Your task to perform on an android device: View the shopping cart on ebay. Search for dell xps on ebay, select the first entry, add it to the cart, then select checkout. Image 0: 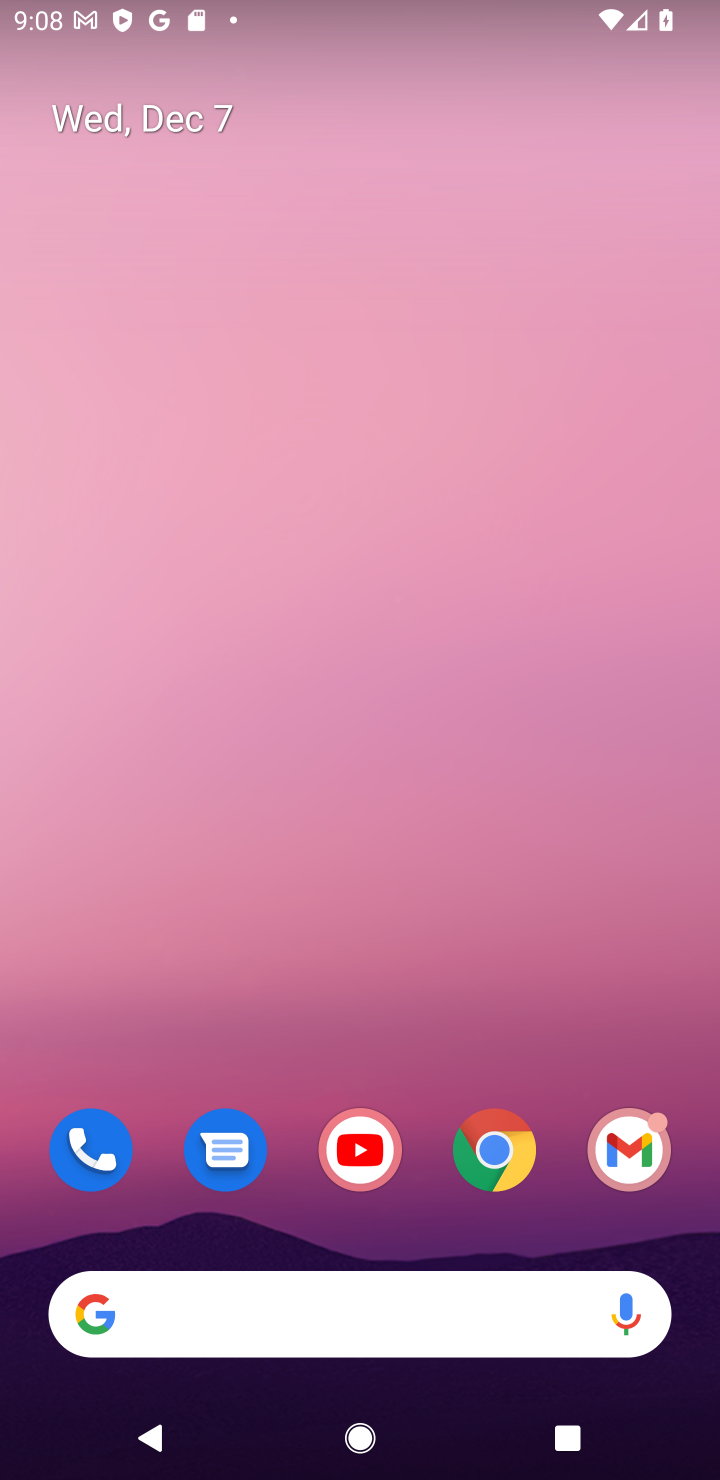
Step 0: click (472, 1167)
Your task to perform on an android device: View the shopping cart on ebay. Search for dell xps on ebay, select the first entry, add it to the cart, then select checkout. Image 1: 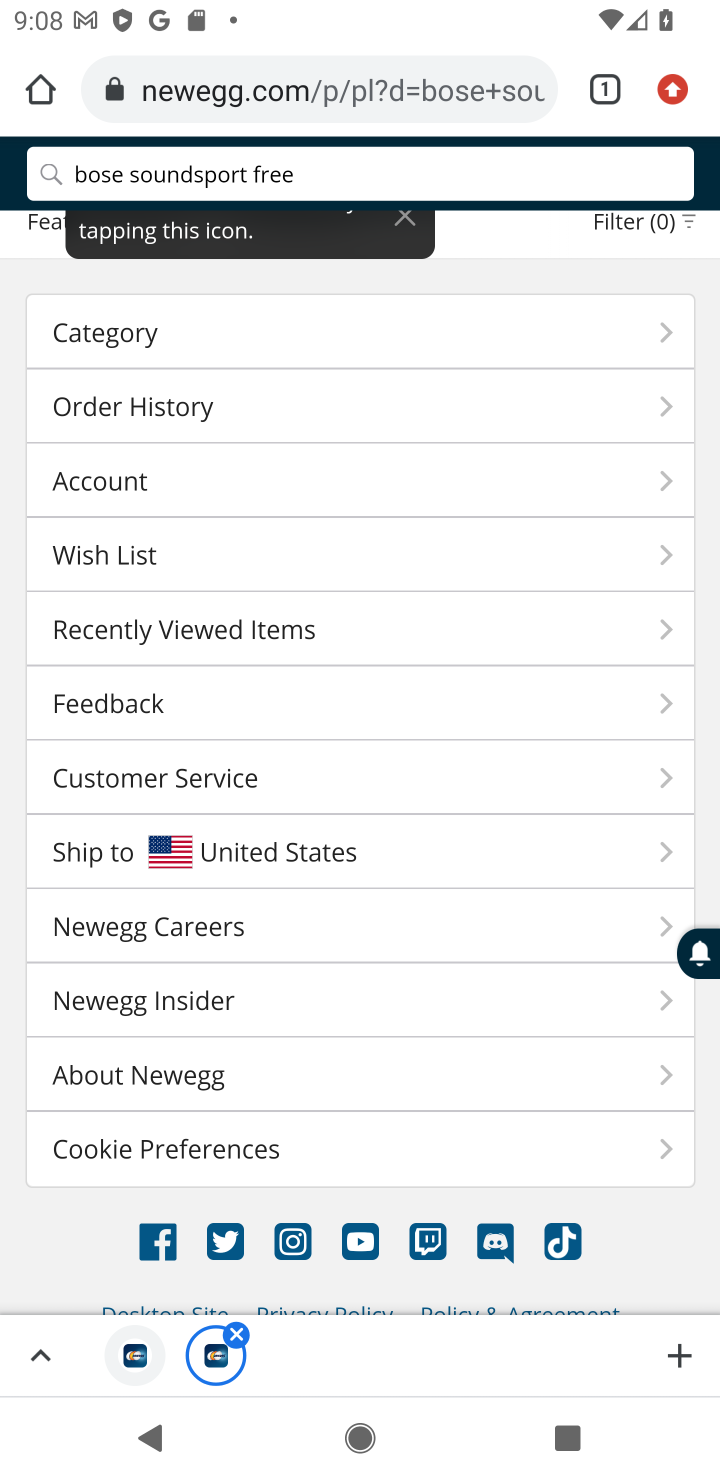
Step 1: click (229, 99)
Your task to perform on an android device: View the shopping cart on ebay. Search for dell xps on ebay, select the first entry, add it to the cart, then select checkout. Image 2: 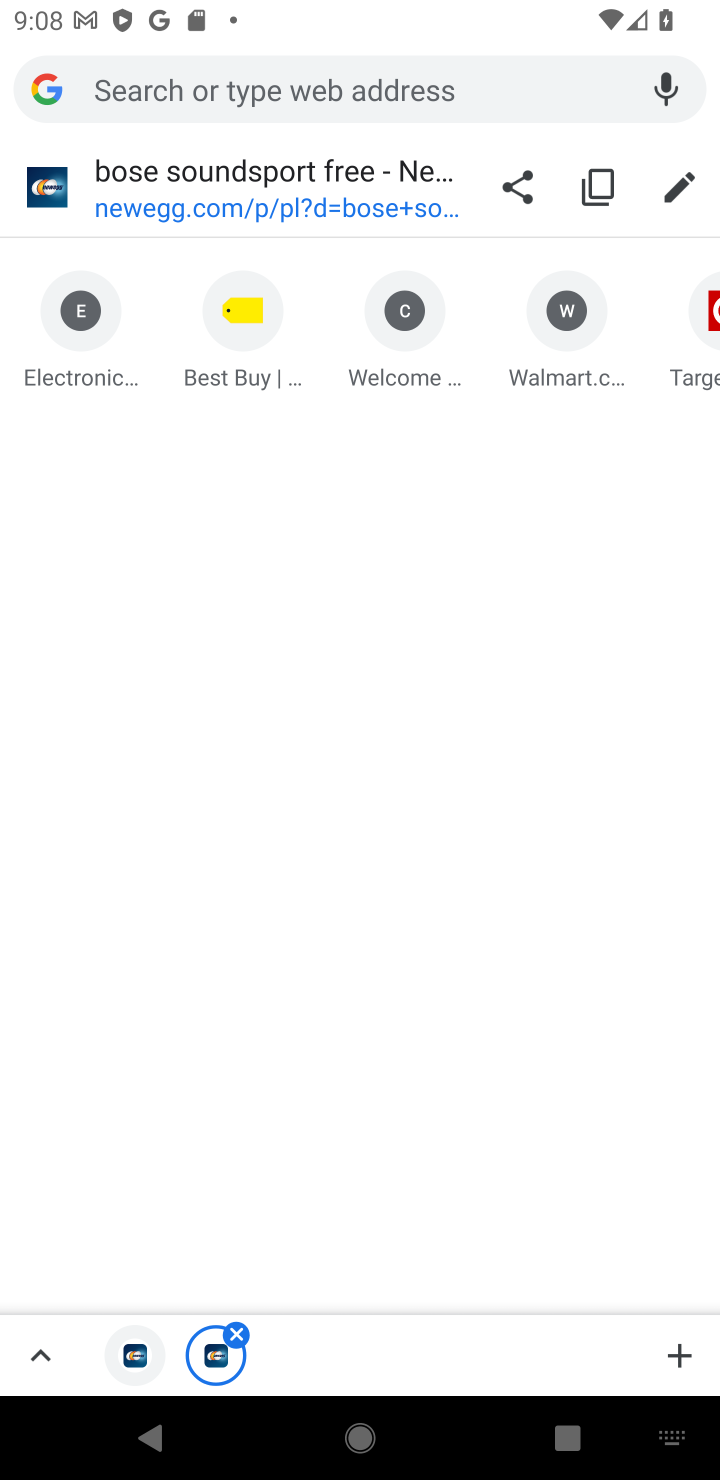
Step 2: click (76, 322)
Your task to perform on an android device: View the shopping cart on ebay. Search for dell xps on ebay, select the first entry, add it to the cart, then select checkout. Image 3: 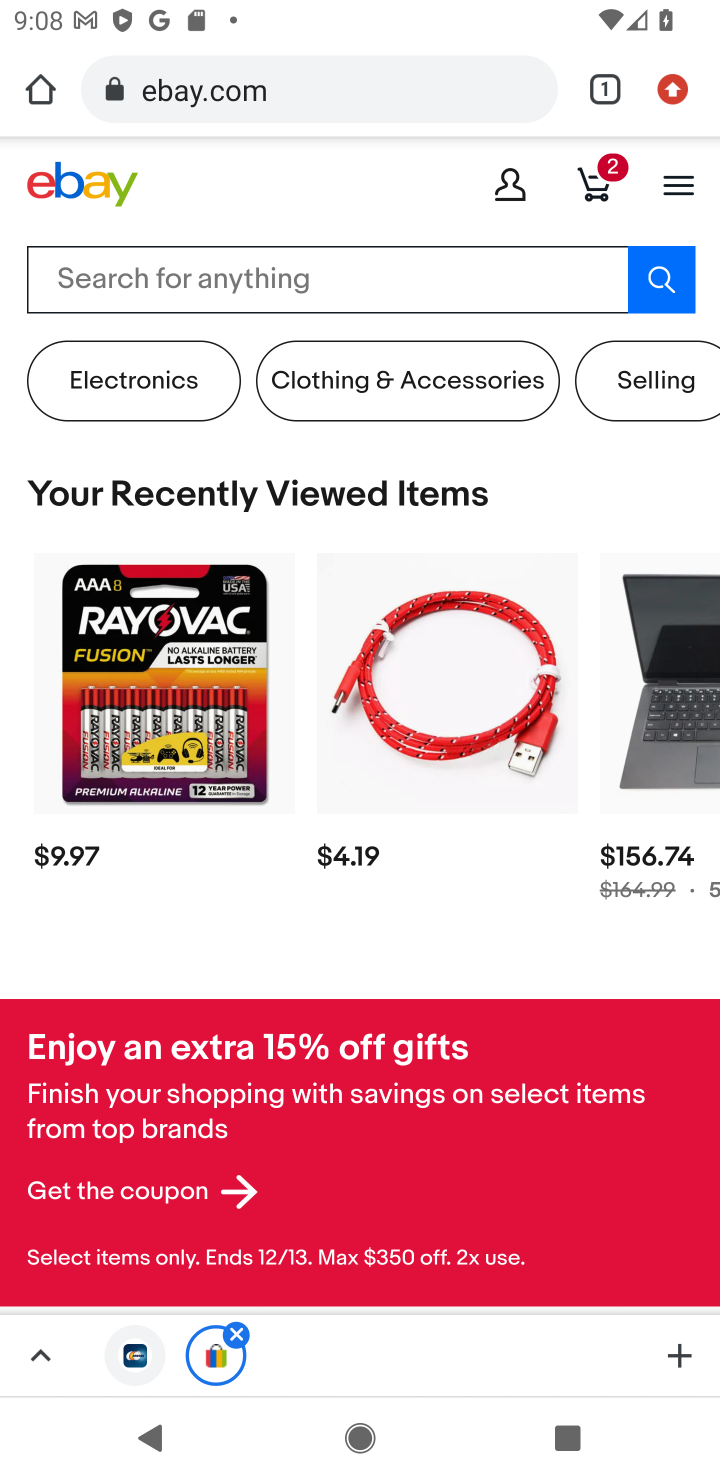
Step 3: click (607, 178)
Your task to perform on an android device: View the shopping cart on ebay. Search for dell xps on ebay, select the first entry, add it to the cart, then select checkout. Image 4: 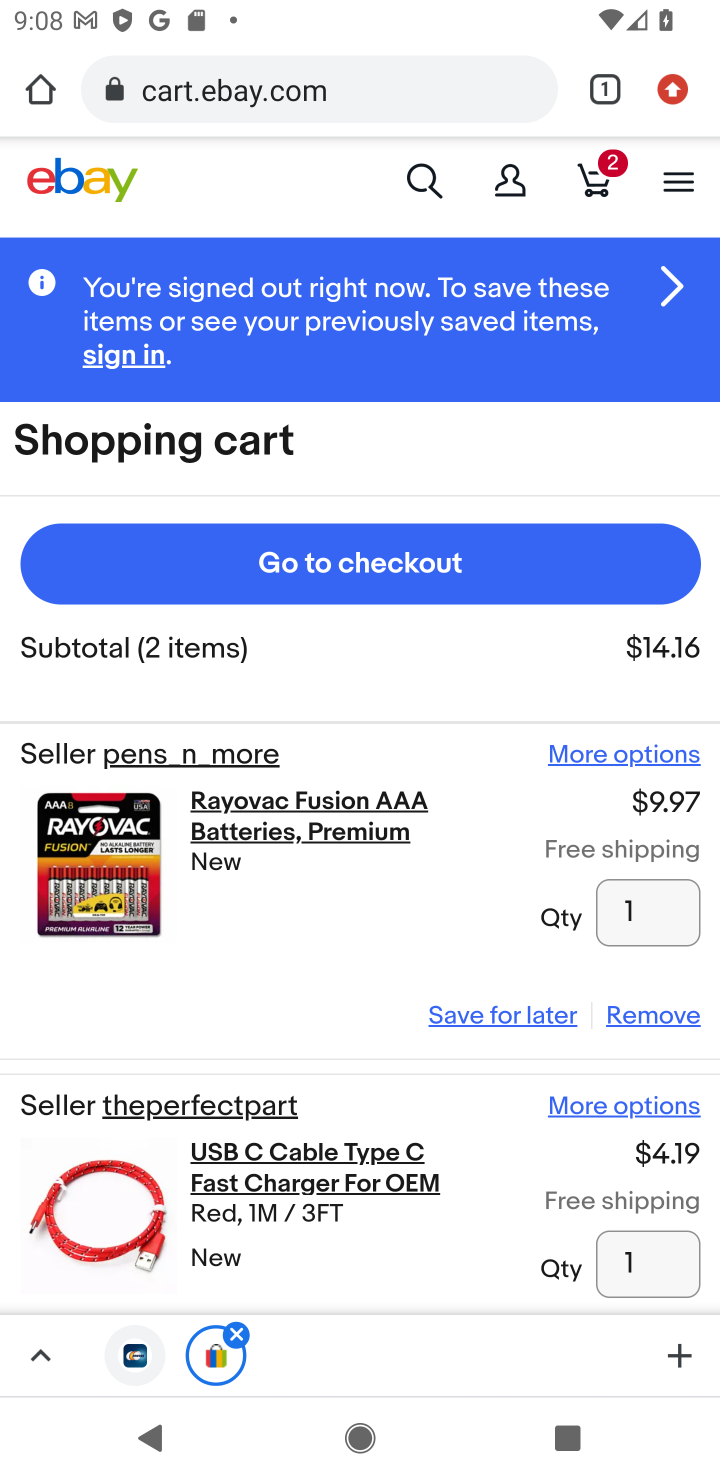
Step 4: click (647, 1020)
Your task to perform on an android device: View the shopping cart on ebay. Search for dell xps on ebay, select the first entry, add it to the cart, then select checkout. Image 5: 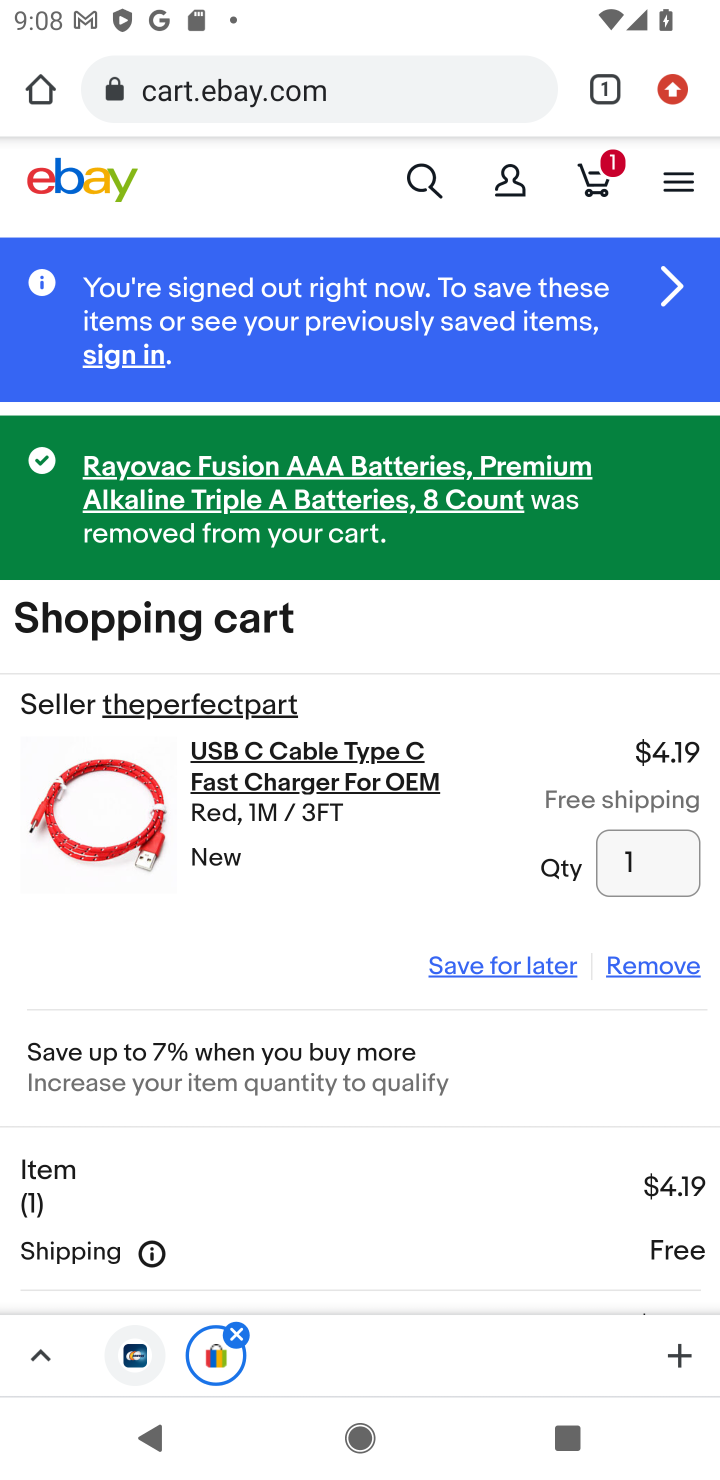
Step 5: click (642, 963)
Your task to perform on an android device: View the shopping cart on ebay. Search for dell xps on ebay, select the first entry, add it to the cart, then select checkout. Image 6: 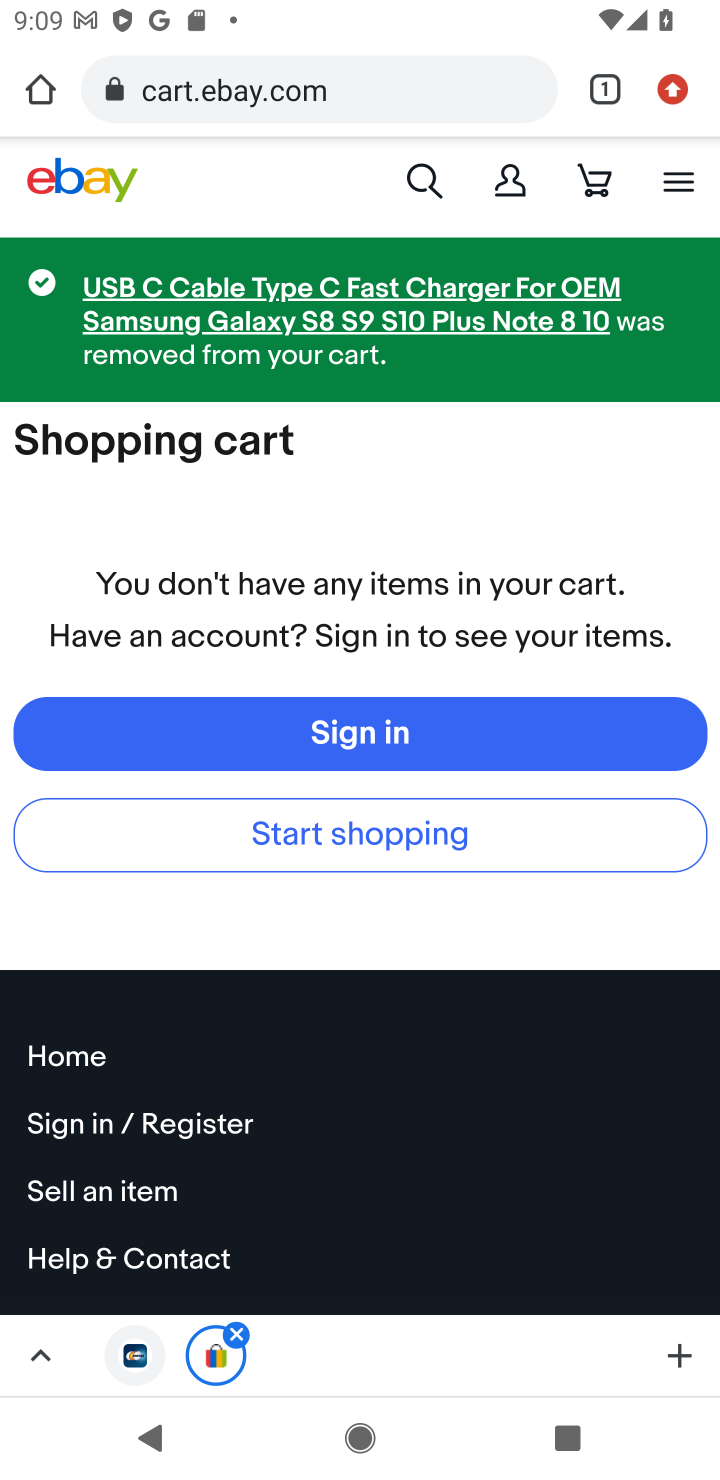
Step 6: click (431, 195)
Your task to perform on an android device: View the shopping cart on ebay. Search for dell xps on ebay, select the first entry, add it to the cart, then select checkout. Image 7: 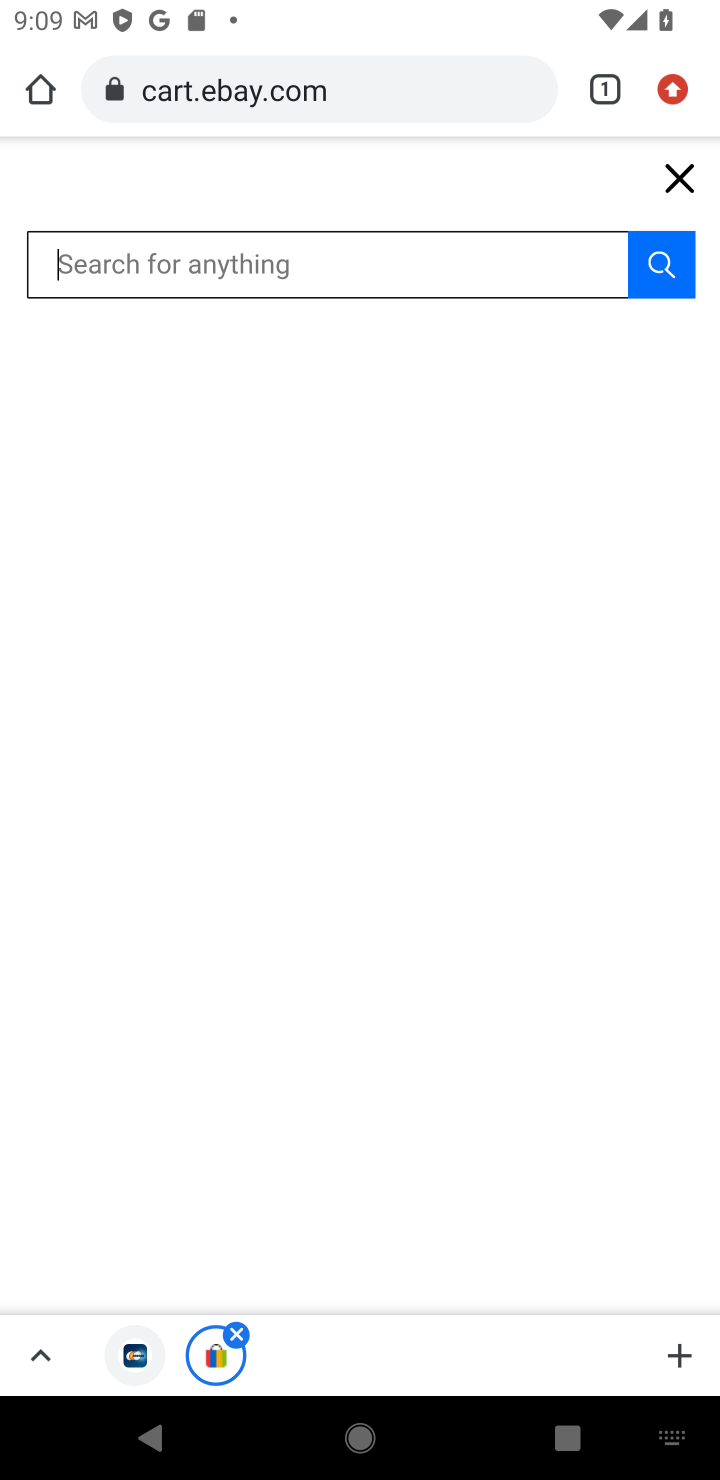
Step 7: type "dell xps"
Your task to perform on an android device: View the shopping cart on ebay. Search for dell xps on ebay, select the first entry, add it to the cart, then select checkout. Image 8: 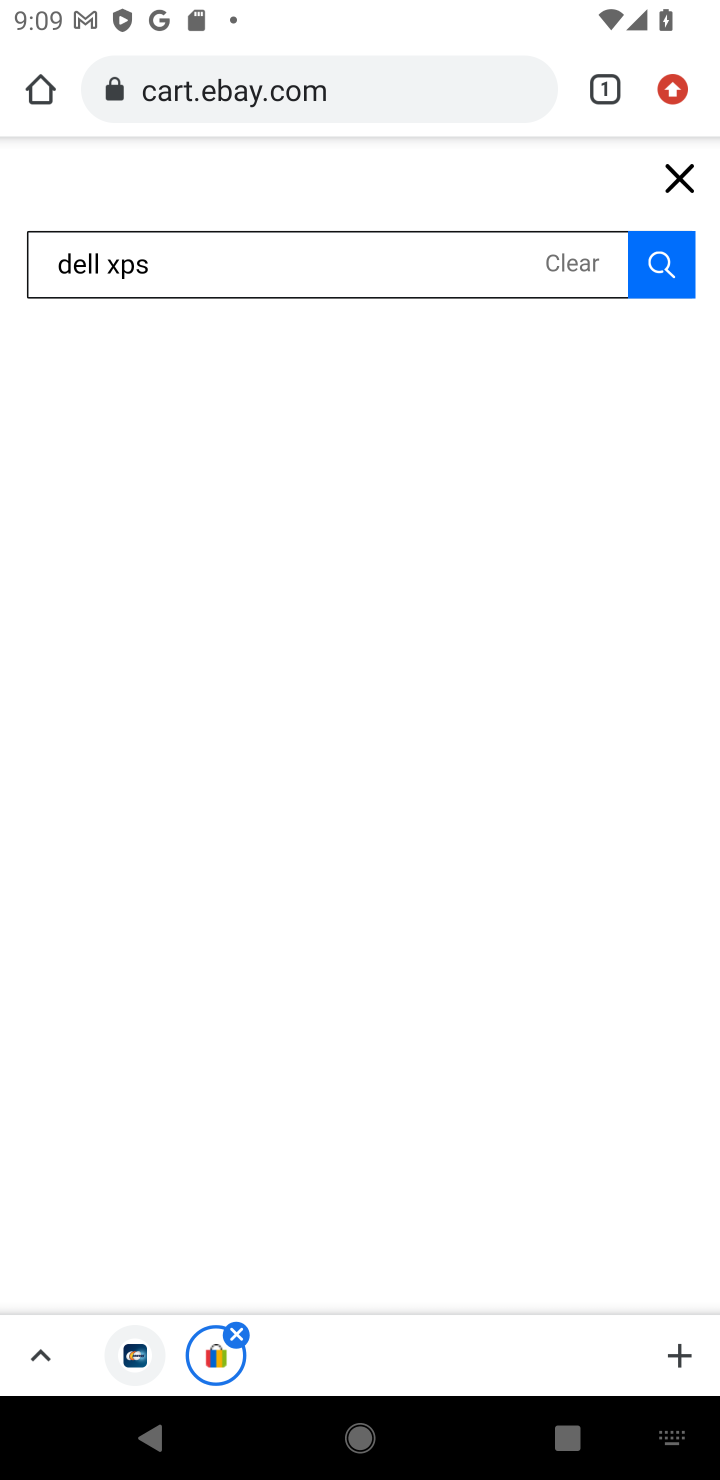
Step 8: press enter
Your task to perform on an android device: View the shopping cart on ebay. Search for dell xps on ebay, select the first entry, add it to the cart, then select checkout. Image 9: 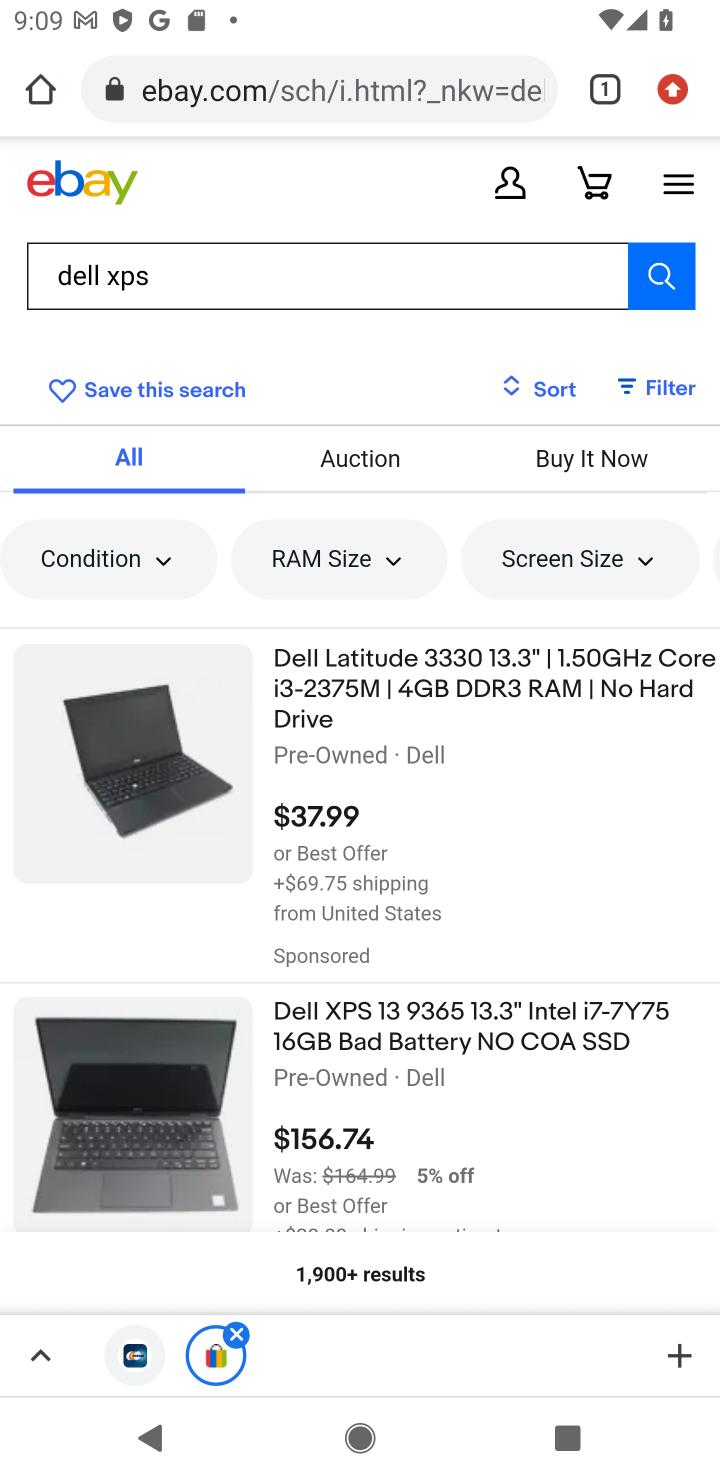
Step 9: click (400, 1036)
Your task to perform on an android device: View the shopping cart on ebay. Search for dell xps on ebay, select the first entry, add it to the cart, then select checkout. Image 10: 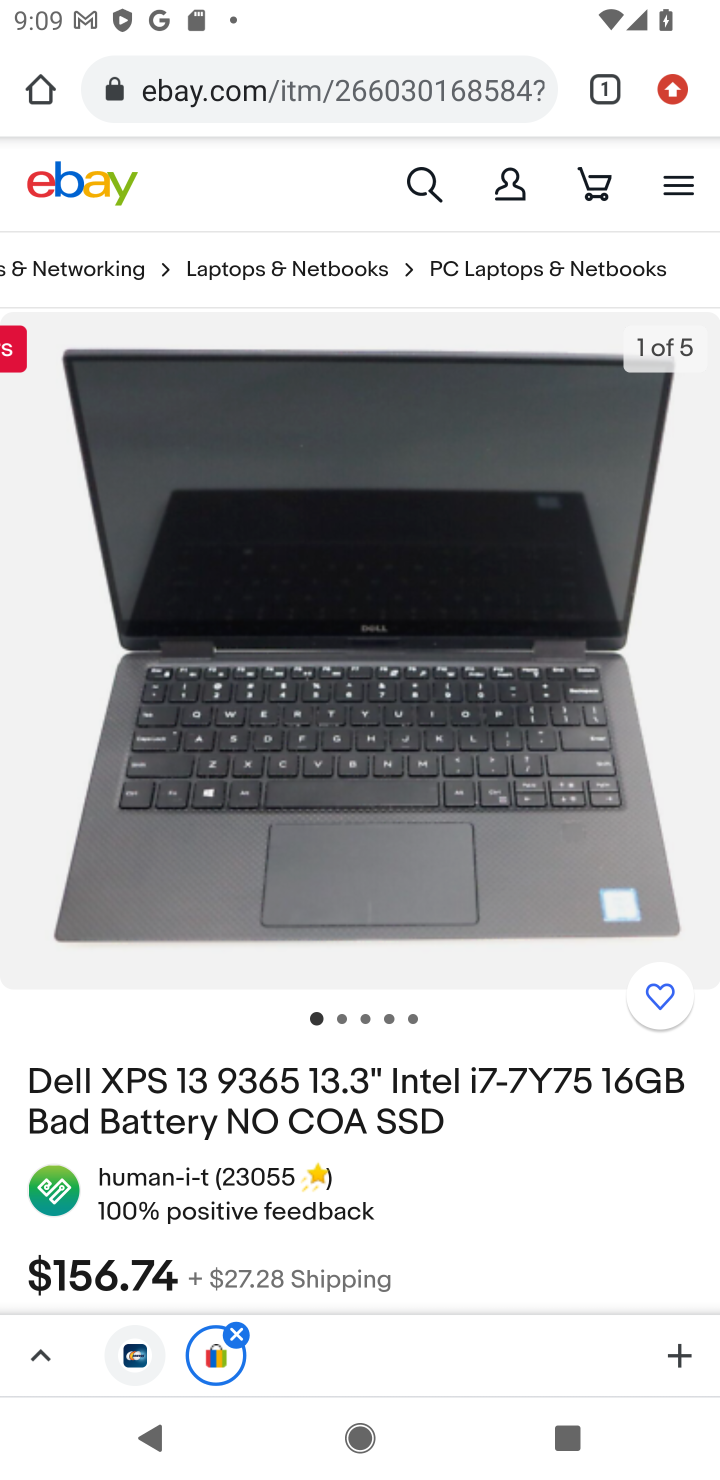
Step 10: drag from (398, 1173) to (395, 712)
Your task to perform on an android device: View the shopping cart on ebay. Search for dell xps on ebay, select the first entry, add it to the cart, then select checkout. Image 11: 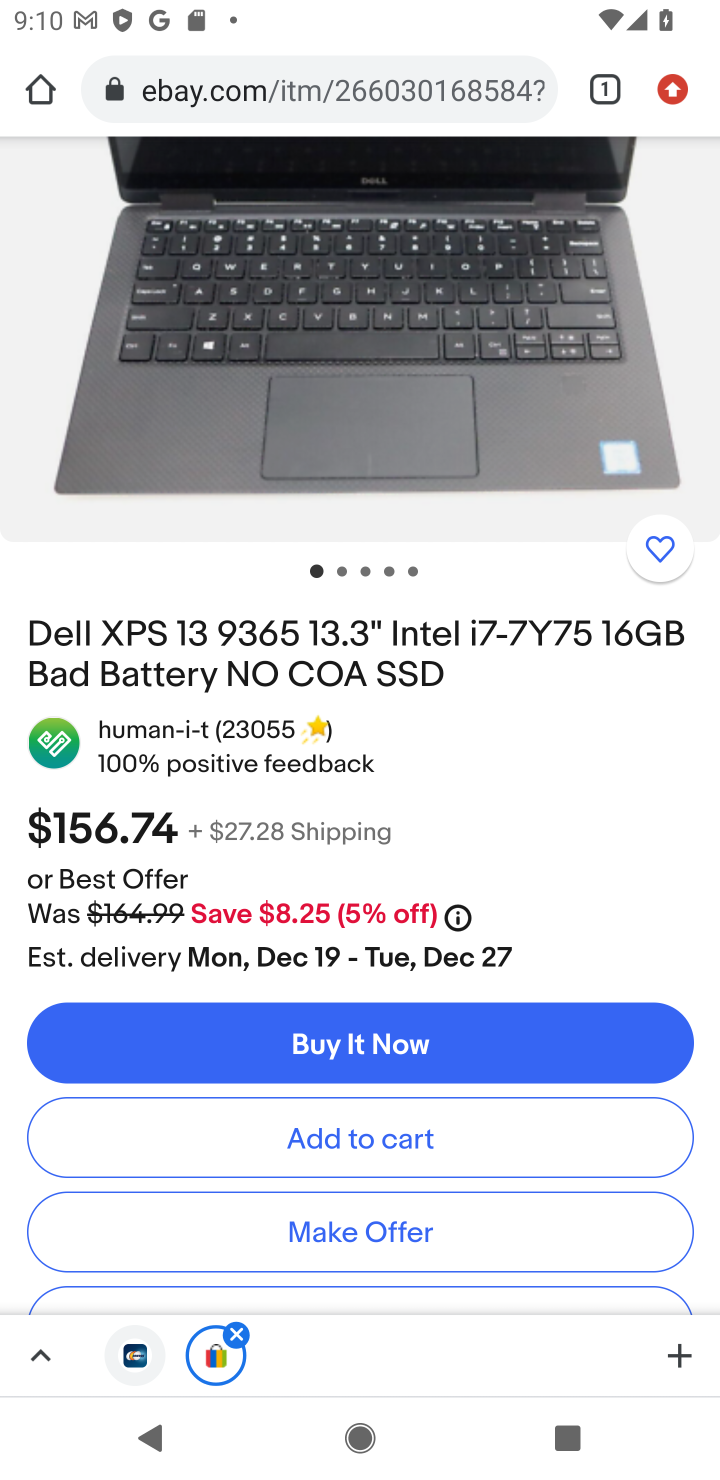
Step 11: click (370, 1145)
Your task to perform on an android device: View the shopping cart on ebay. Search for dell xps on ebay, select the first entry, add it to the cart, then select checkout. Image 12: 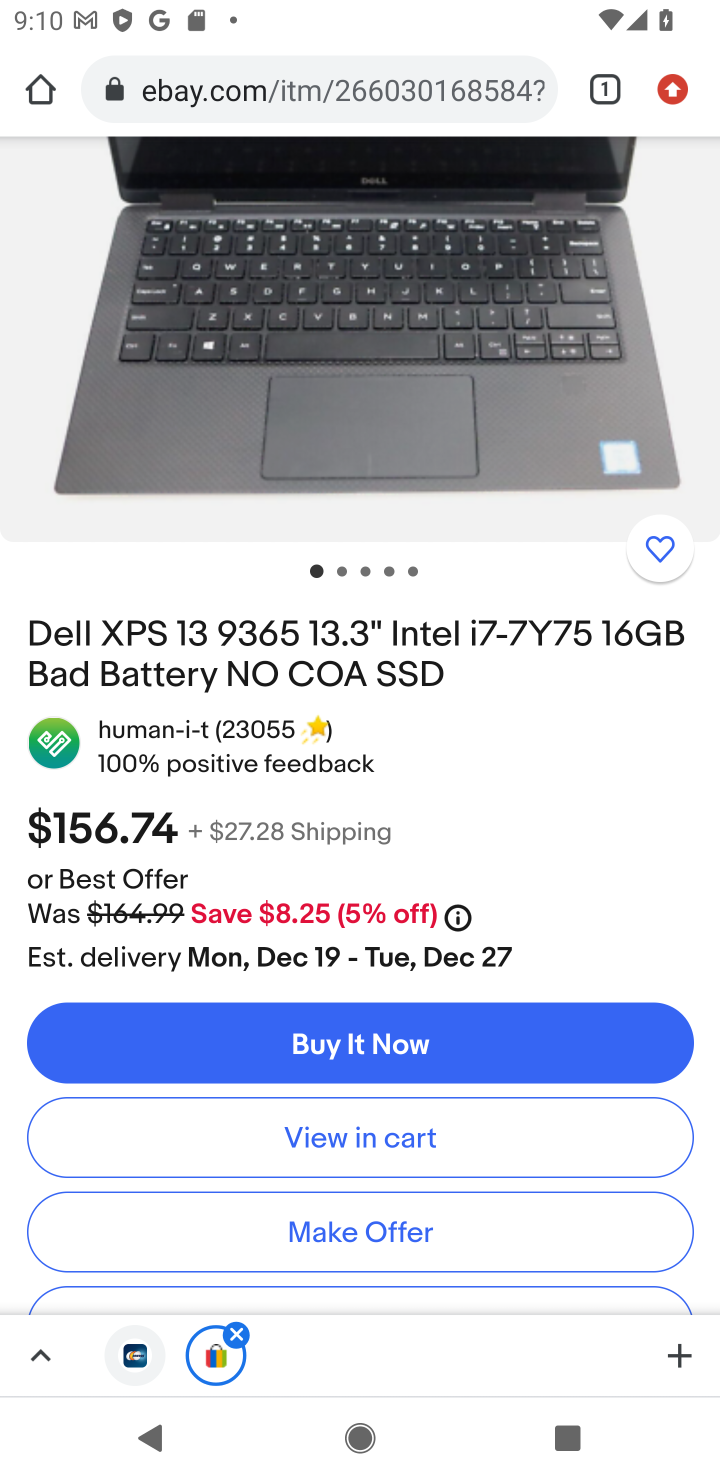
Step 12: click (370, 1145)
Your task to perform on an android device: View the shopping cart on ebay. Search for dell xps on ebay, select the first entry, add it to the cart, then select checkout. Image 13: 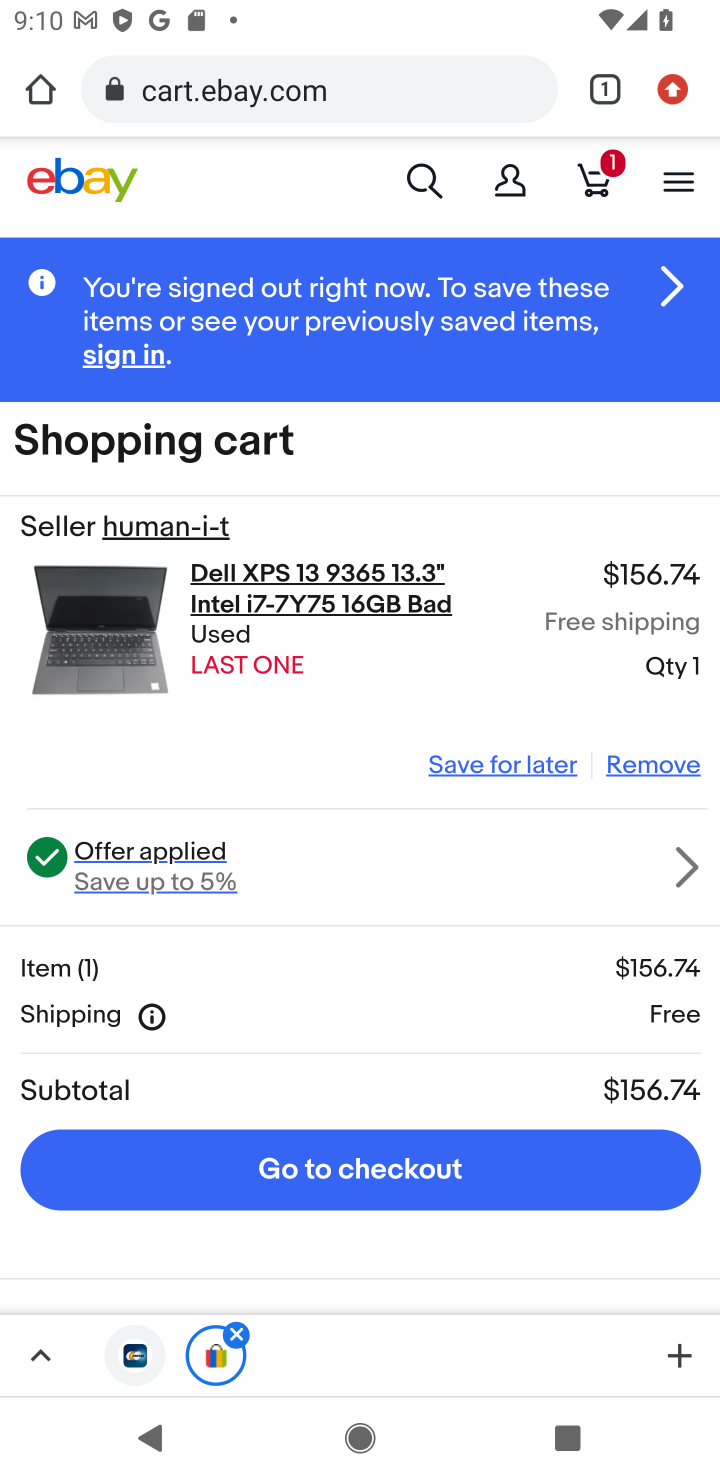
Step 13: click (353, 1164)
Your task to perform on an android device: View the shopping cart on ebay. Search for dell xps on ebay, select the first entry, add it to the cart, then select checkout. Image 14: 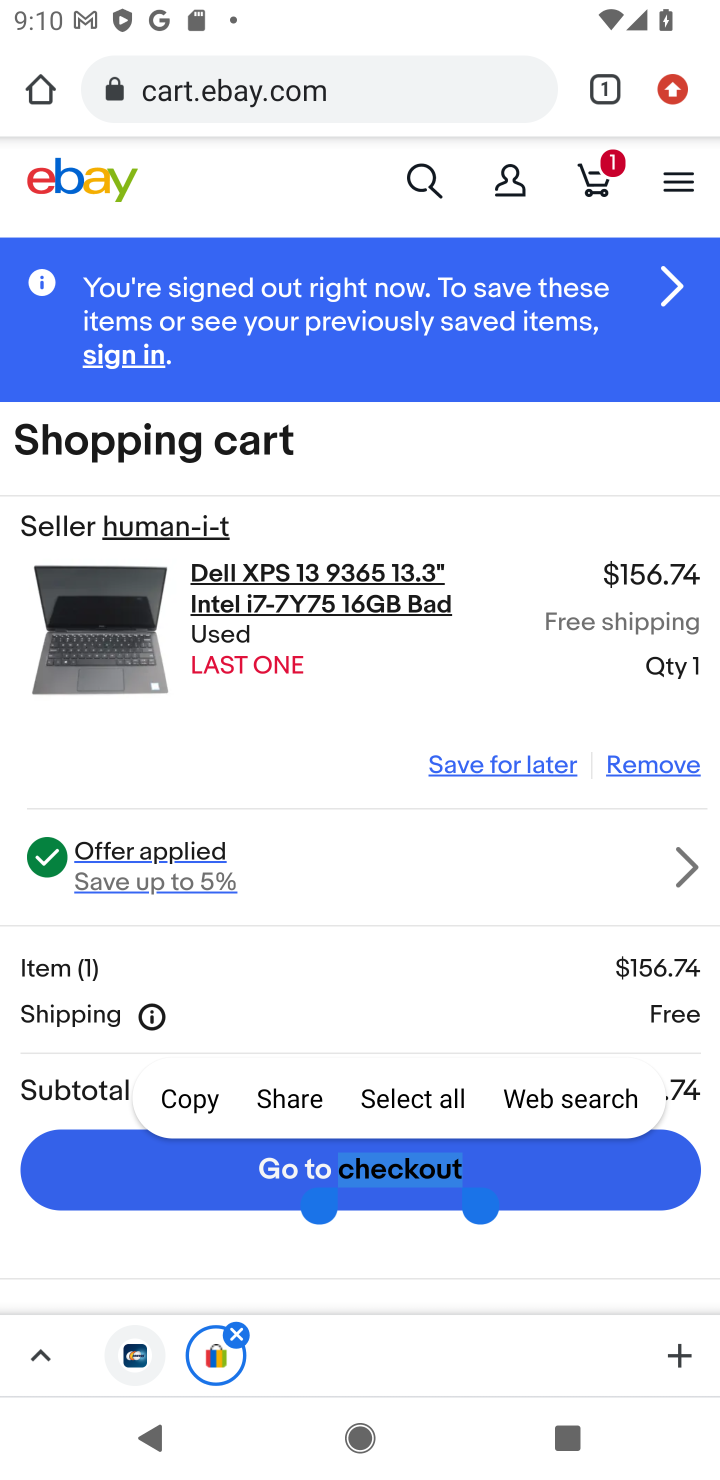
Step 14: click (622, 1169)
Your task to perform on an android device: View the shopping cart on ebay. Search for dell xps on ebay, select the first entry, add it to the cart, then select checkout. Image 15: 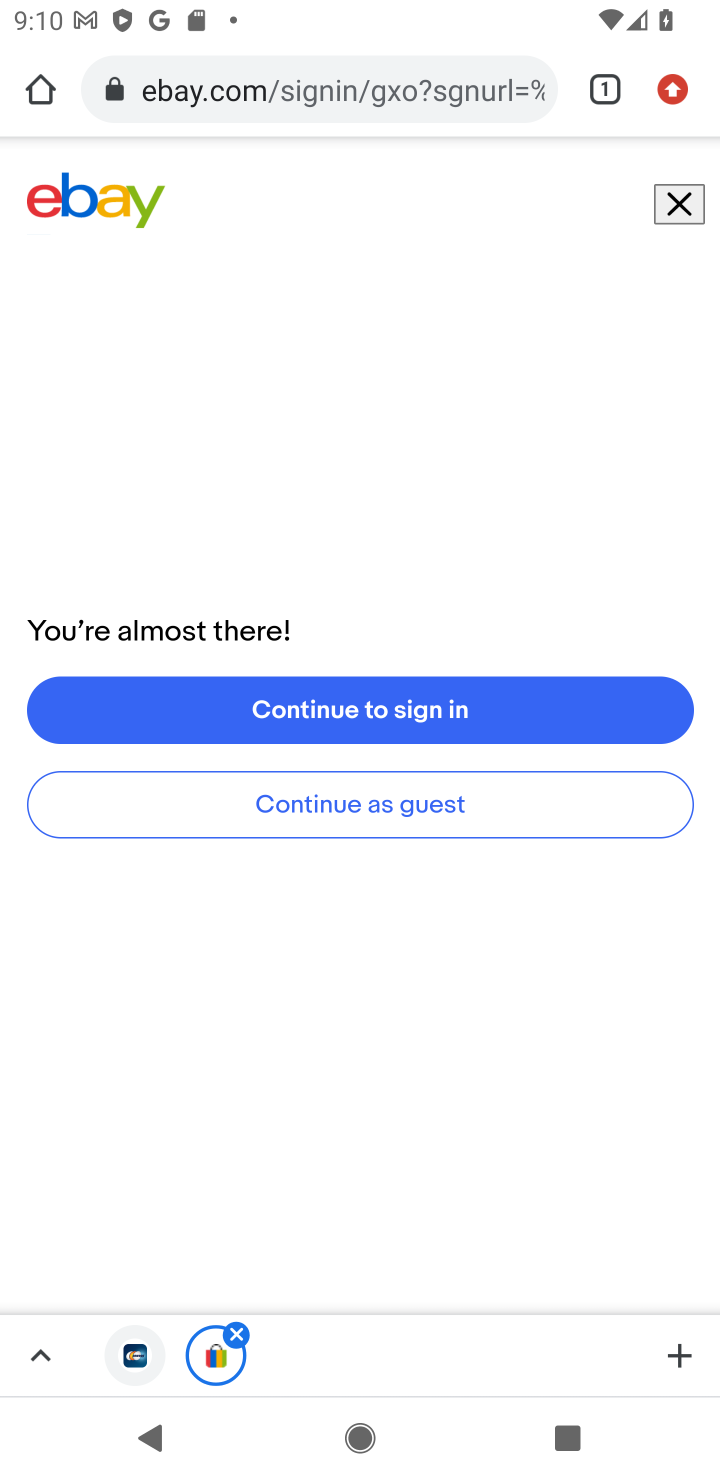
Step 15: click (444, 717)
Your task to perform on an android device: View the shopping cart on ebay. Search for dell xps on ebay, select the first entry, add it to the cart, then select checkout. Image 16: 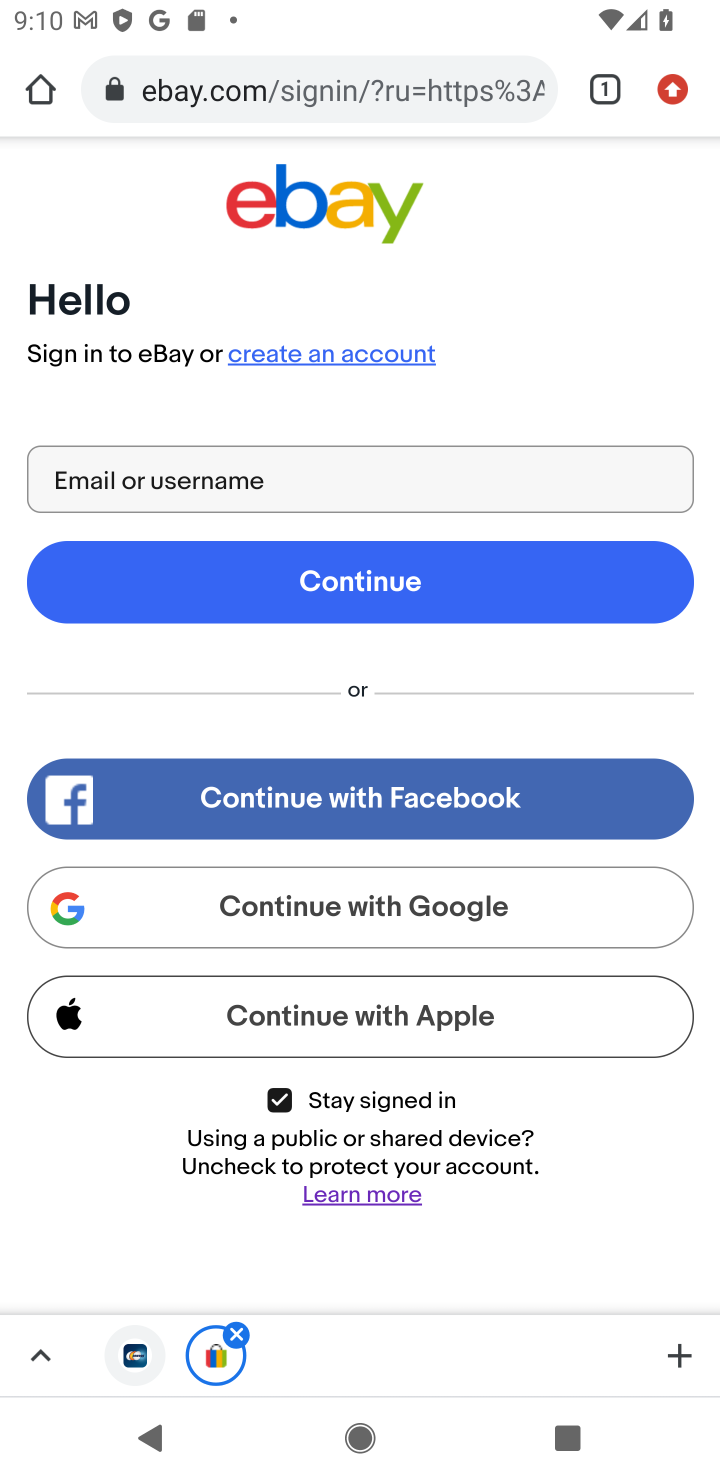
Step 16: task complete